Your task to perform on an android device: turn off picture-in-picture Image 0: 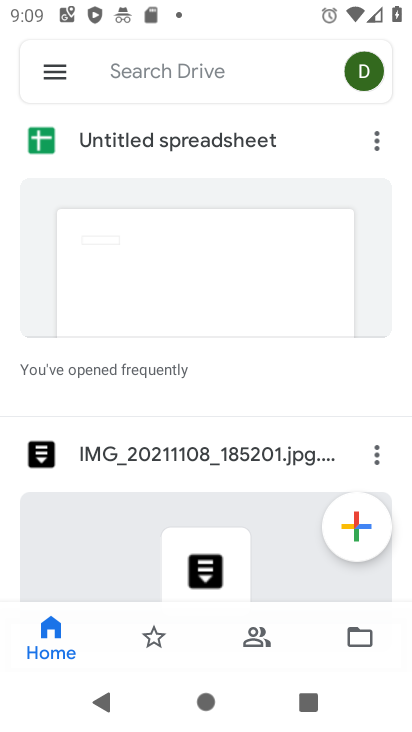
Step 0: press home button
Your task to perform on an android device: turn off picture-in-picture Image 1: 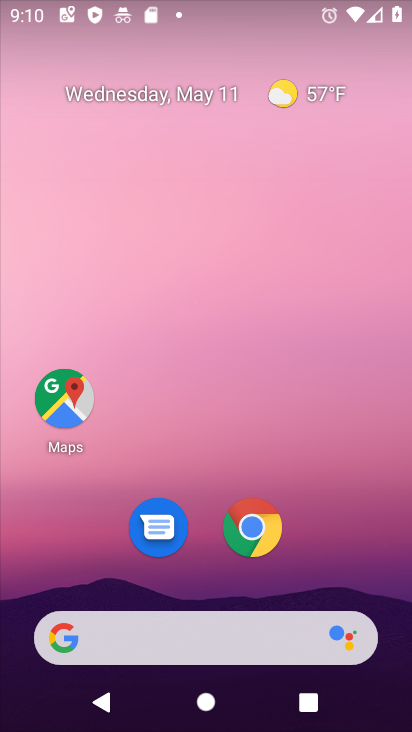
Step 1: drag from (265, 529) to (205, 344)
Your task to perform on an android device: turn off picture-in-picture Image 2: 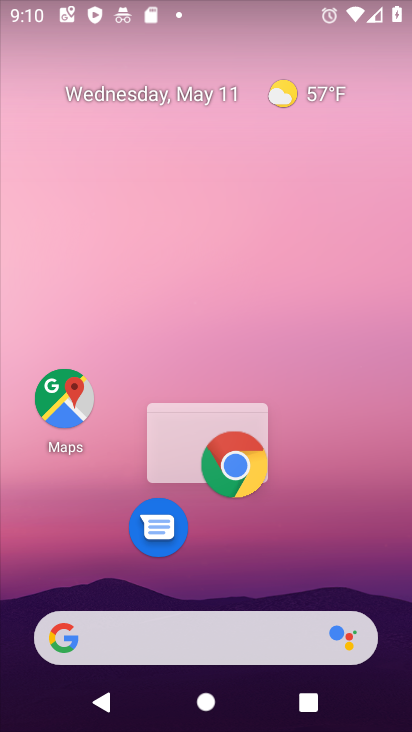
Step 2: click (194, 325)
Your task to perform on an android device: turn off picture-in-picture Image 3: 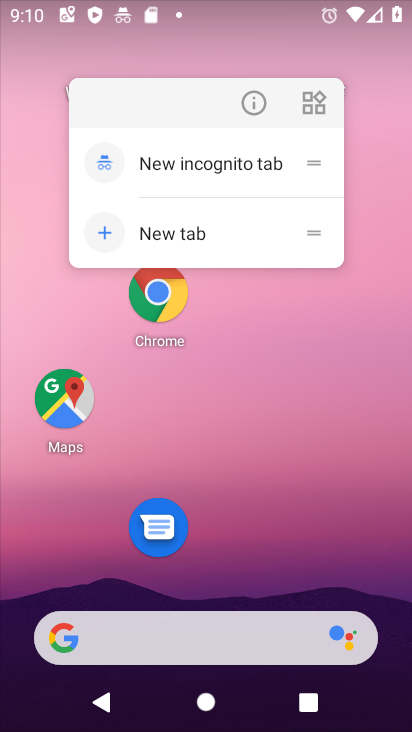
Step 3: click (244, 98)
Your task to perform on an android device: turn off picture-in-picture Image 4: 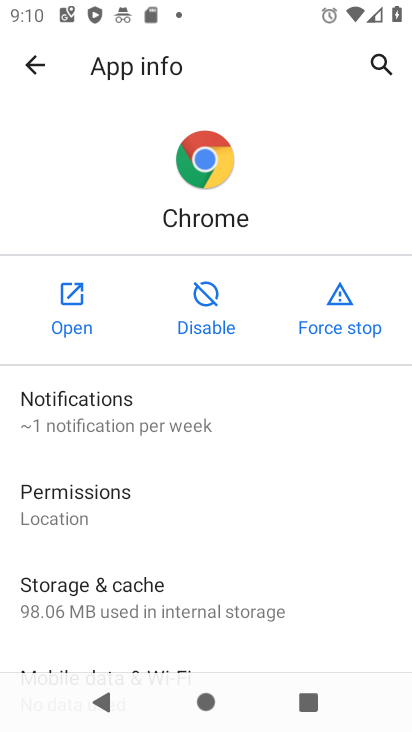
Step 4: drag from (238, 556) to (185, 15)
Your task to perform on an android device: turn off picture-in-picture Image 5: 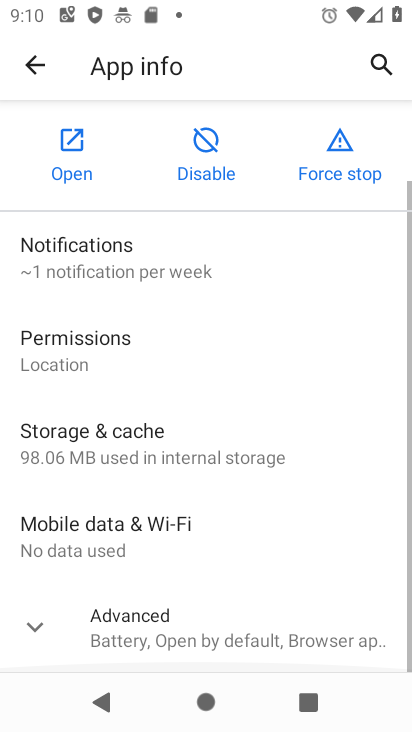
Step 5: drag from (240, 533) to (185, 115)
Your task to perform on an android device: turn off picture-in-picture Image 6: 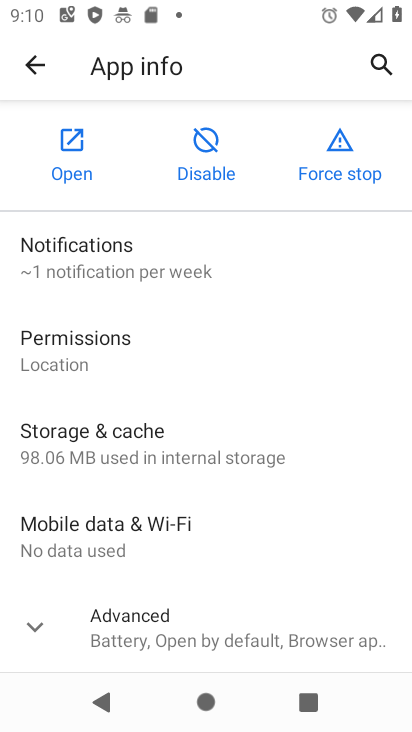
Step 6: click (33, 634)
Your task to perform on an android device: turn off picture-in-picture Image 7: 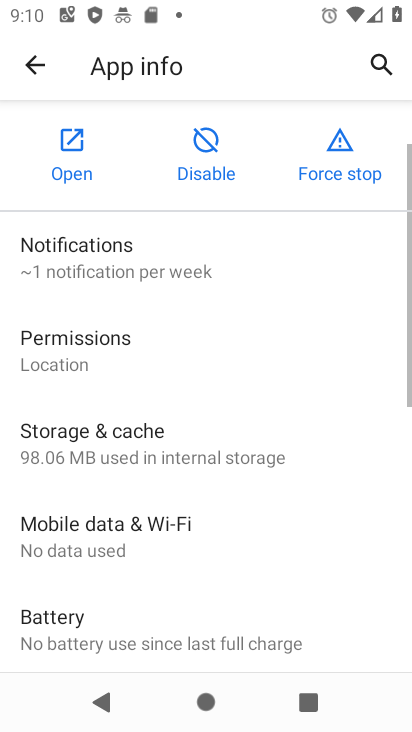
Step 7: drag from (214, 609) to (182, 87)
Your task to perform on an android device: turn off picture-in-picture Image 8: 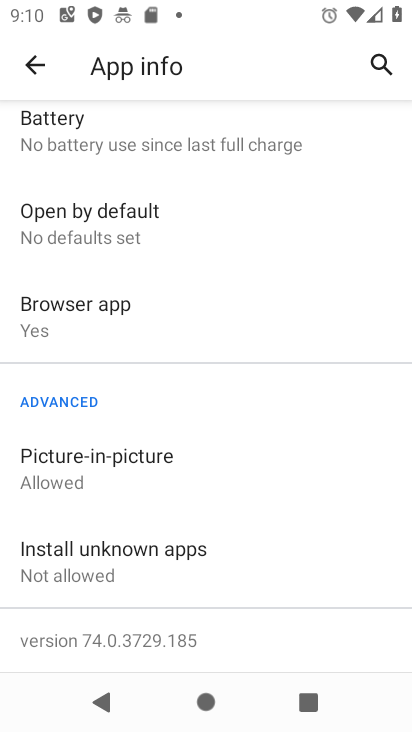
Step 8: click (118, 471)
Your task to perform on an android device: turn off picture-in-picture Image 9: 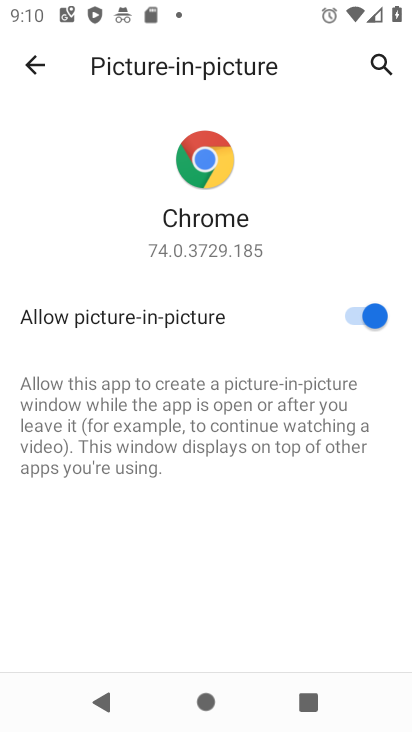
Step 9: click (350, 302)
Your task to perform on an android device: turn off picture-in-picture Image 10: 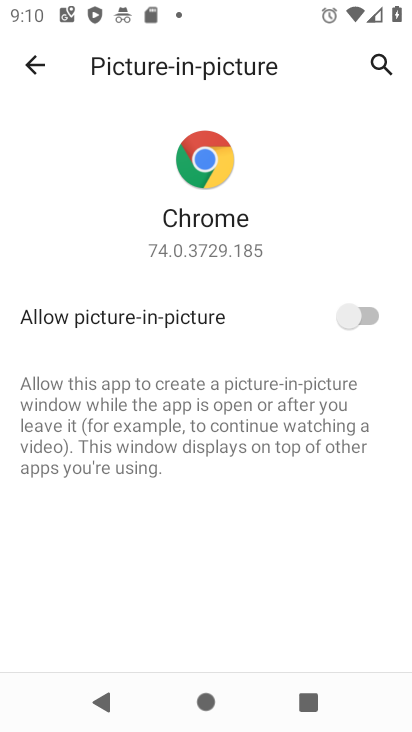
Step 10: task complete